Your task to perform on an android device: turn on airplane mode Image 0: 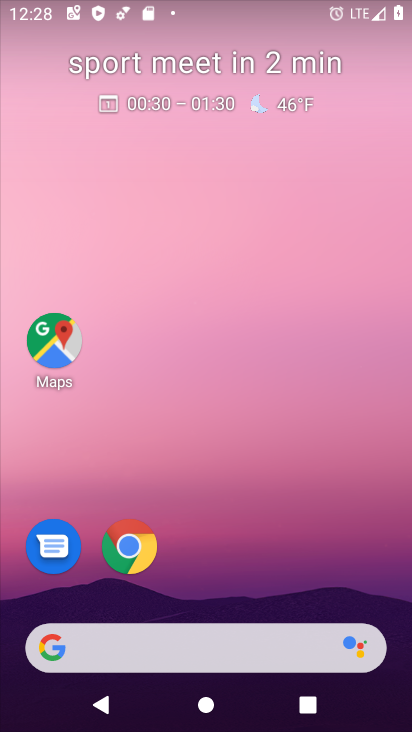
Step 0: drag from (327, 601) to (325, 50)
Your task to perform on an android device: turn on airplane mode Image 1: 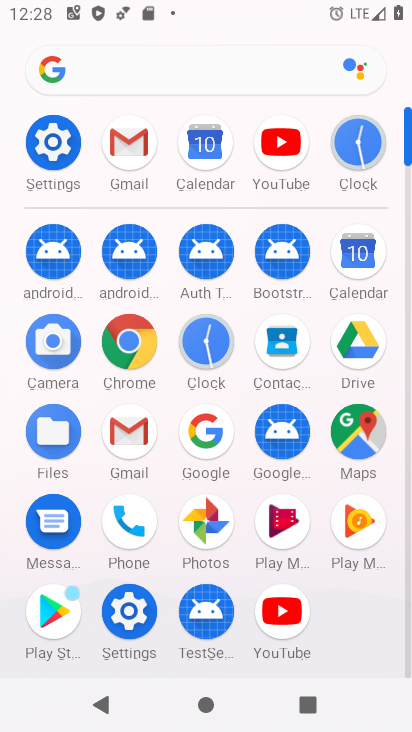
Step 1: click (54, 142)
Your task to perform on an android device: turn on airplane mode Image 2: 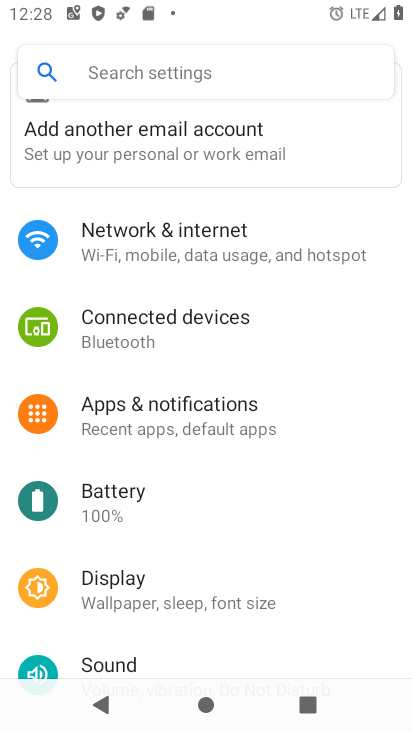
Step 2: click (208, 256)
Your task to perform on an android device: turn on airplane mode Image 3: 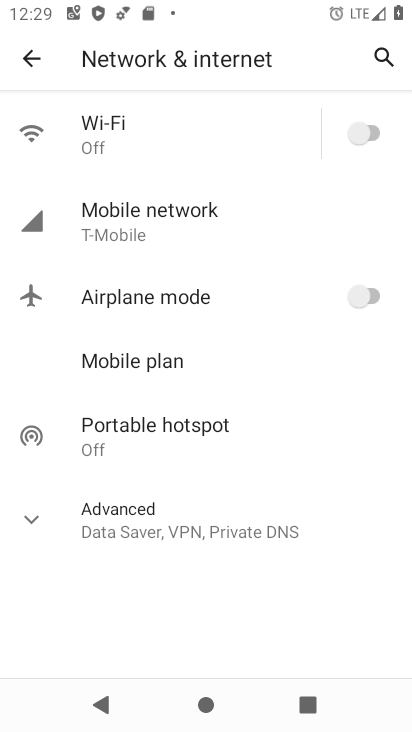
Step 3: click (367, 304)
Your task to perform on an android device: turn on airplane mode Image 4: 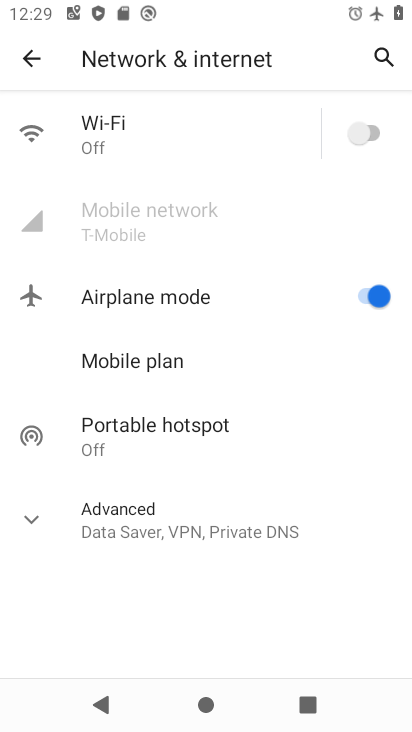
Step 4: task complete